Your task to perform on an android device: Open Google Maps Image 0: 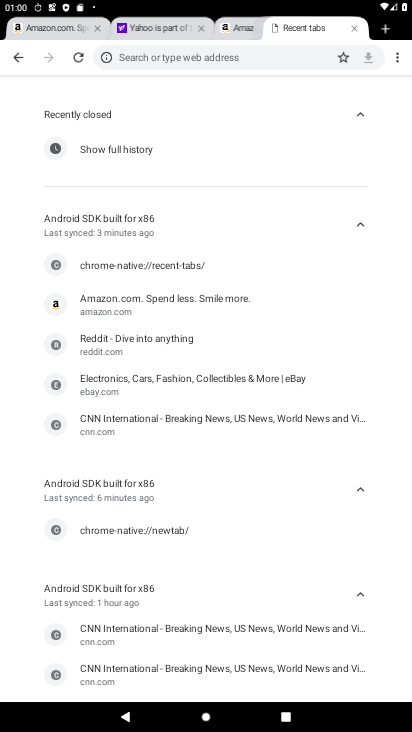
Step 0: press home button
Your task to perform on an android device: Open Google Maps Image 1: 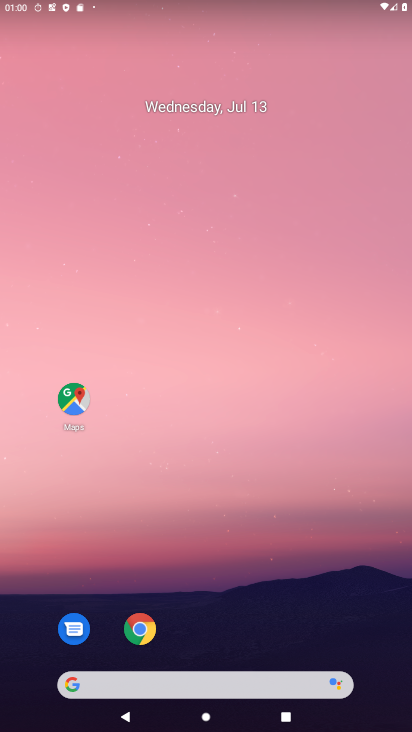
Step 1: click (80, 405)
Your task to perform on an android device: Open Google Maps Image 2: 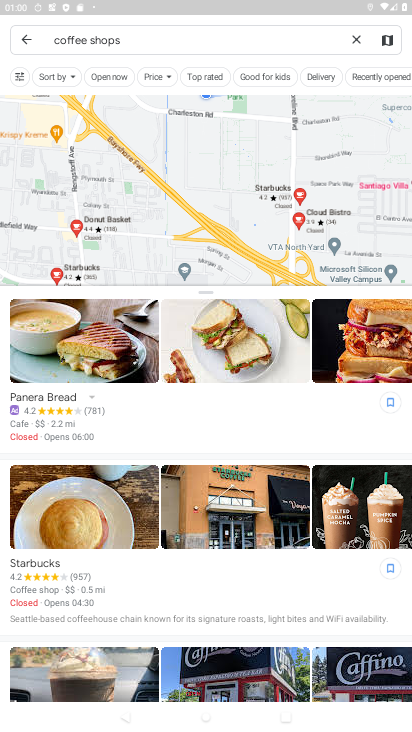
Step 2: task complete